Your task to perform on an android device: check data usage Image 0: 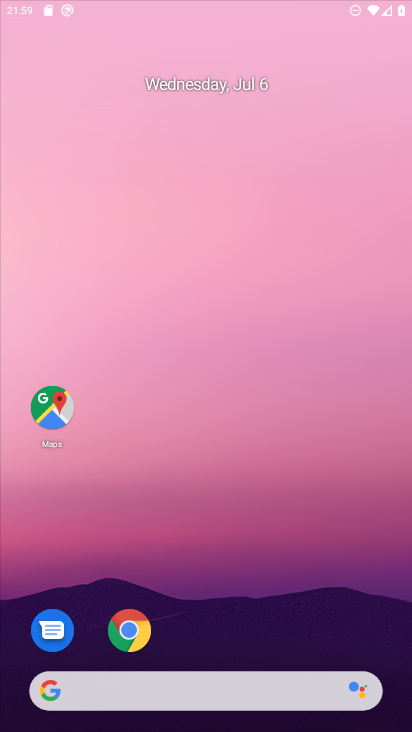
Step 0: drag from (245, 646) to (227, 6)
Your task to perform on an android device: check data usage Image 1: 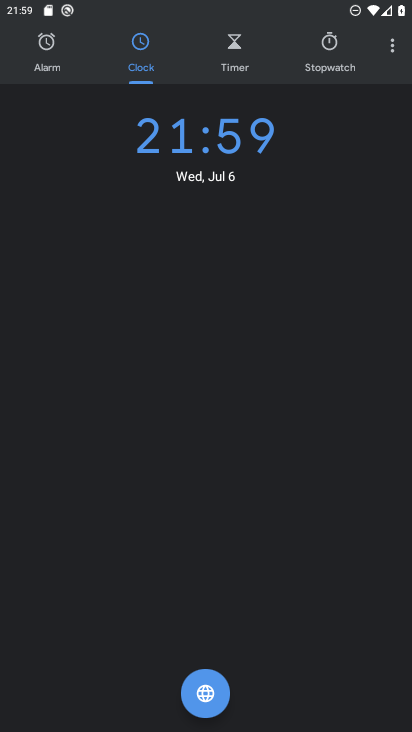
Step 1: press home button
Your task to perform on an android device: check data usage Image 2: 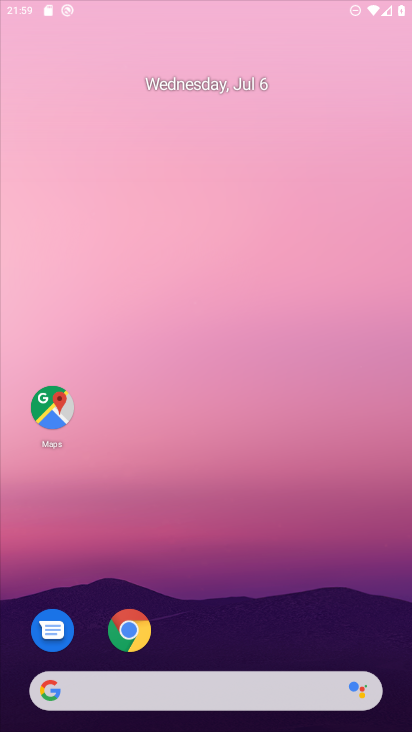
Step 2: drag from (215, 16) to (261, 611)
Your task to perform on an android device: check data usage Image 3: 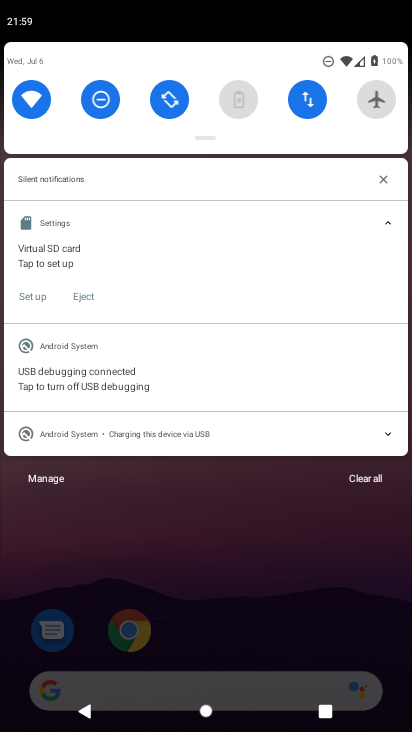
Step 3: click (290, 100)
Your task to perform on an android device: check data usage Image 4: 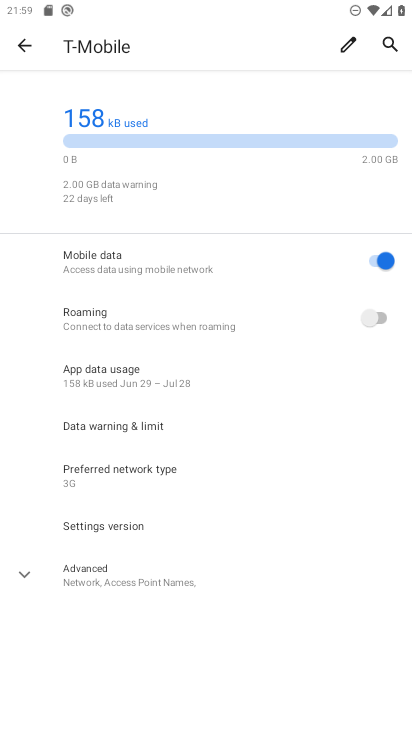
Step 4: task complete